Your task to perform on an android device: toggle priority inbox in the gmail app Image 0: 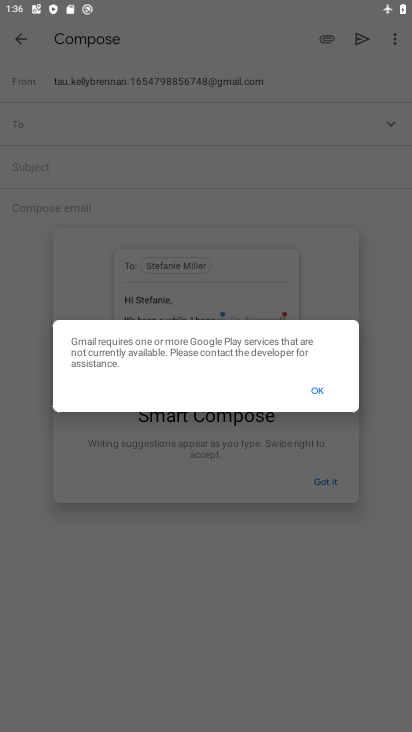
Step 0: press home button
Your task to perform on an android device: toggle priority inbox in the gmail app Image 1: 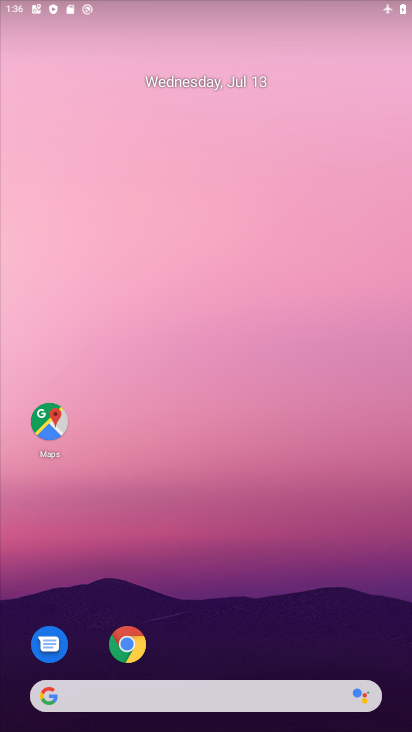
Step 1: drag from (321, 617) to (289, 135)
Your task to perform on an android device: toggle priority inbox in the gmail app Image 2: 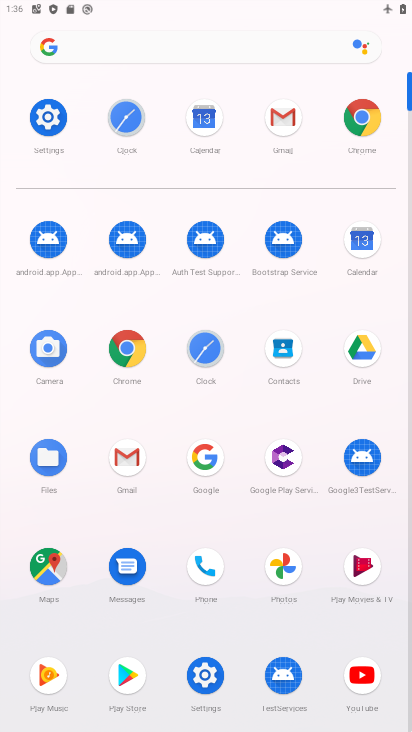
Step 2: click (295, 120)
Your task to perform on an android device: toggle priority inbox in the gmail app Image 3: 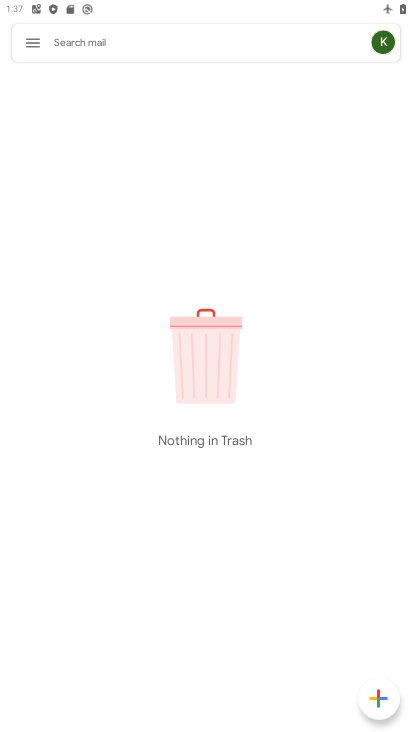
Step 3: click (36, 39)
Your task to perform on an android device: toggle priority inbox in the gmail app Image 4: 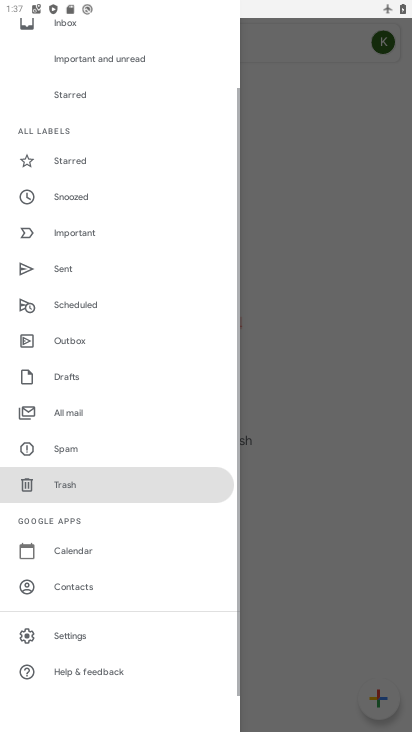
Step 4: click (78, 638)
Your task to perform on an android device: toggle priority inbox in the gmail app Image 5: 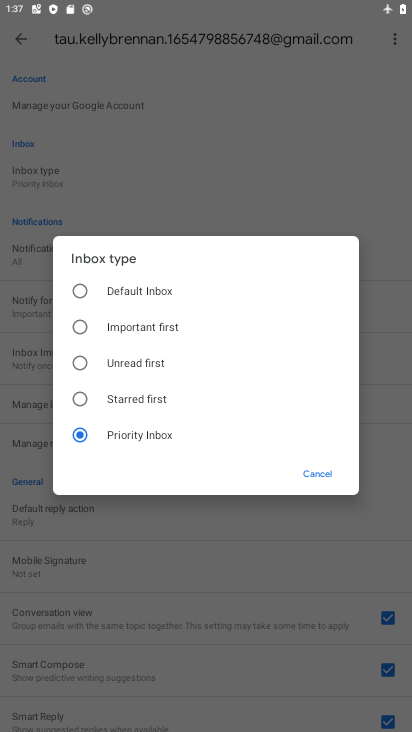
Step 5: click (131, 289)
Your task to perform on an android device: toggle priority inbox in the gmail app Image 6: 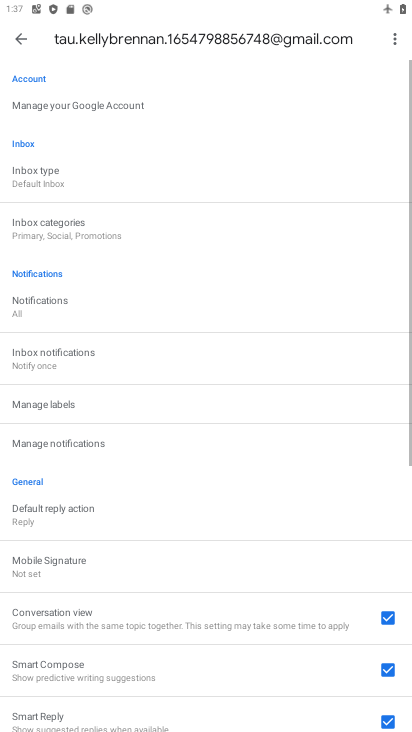
Step 6: task complete